Your task to perform on an android device: clear history in the chrome app Image 0: 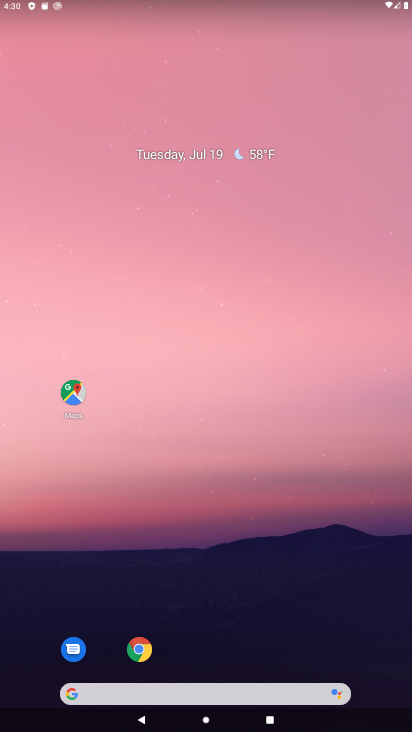
Step 0: drag from (280, 583) to (202, 68)
Your task to perform on an android device: clear history in the chrome app Image 1: 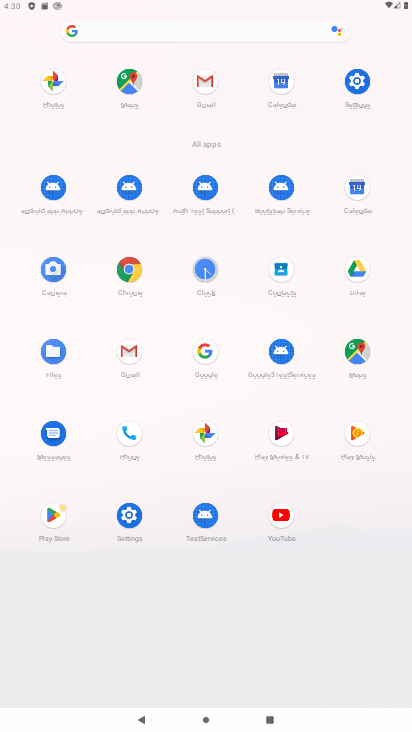
Step 1: click (116, 250)
Your task to perform on an android device: clear history in the chrome app Image 2: 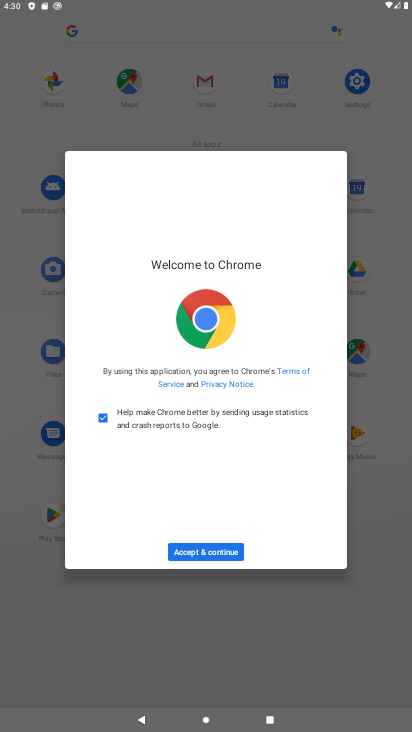
Step 2: click (193, 549)
Your task to perform on an android device: clear history in the chrome app Image 3: 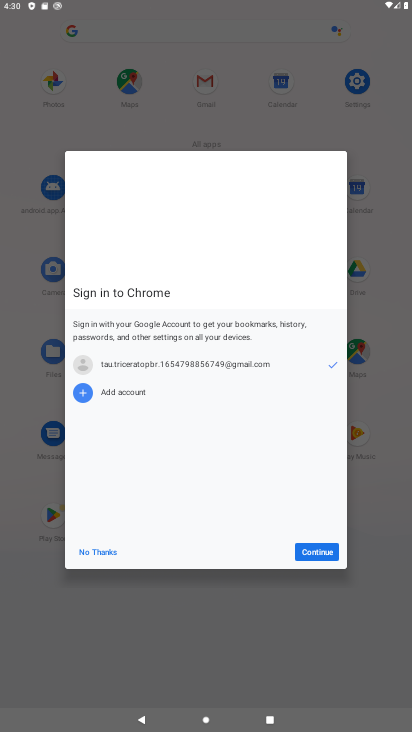
Step 3: click (323, 550)
Your task to perform on an android device: clear history in the chrome app Image 4: 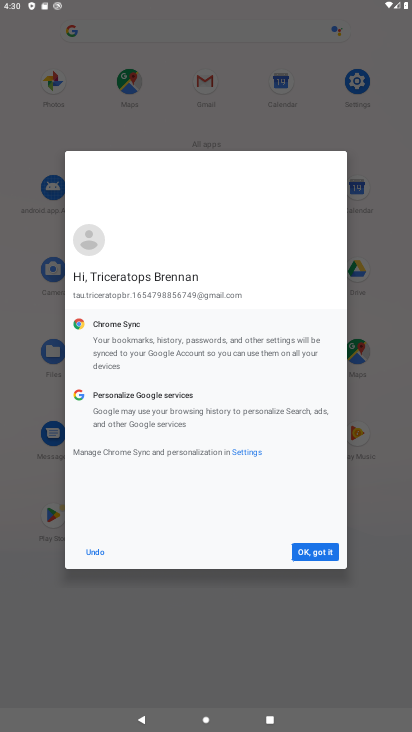
Step 4: click (323, 550)
Your task to perform on an android device: clear history in the chrome app Image 5: 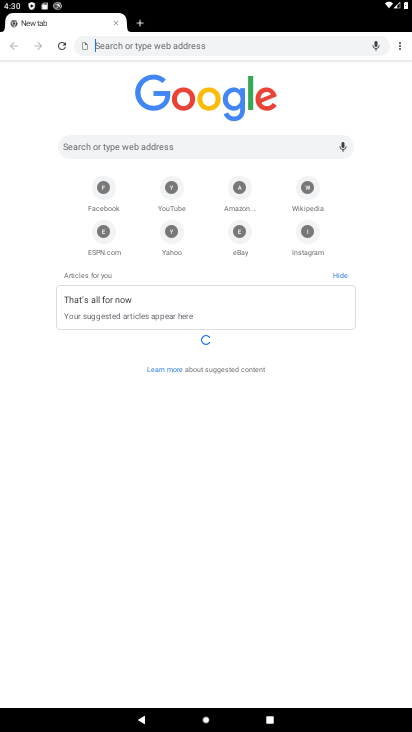
Step 5: drag from (401, 44) to (309, 145)
Your task to perform on an android device: clear history in the chrome app Image 6: 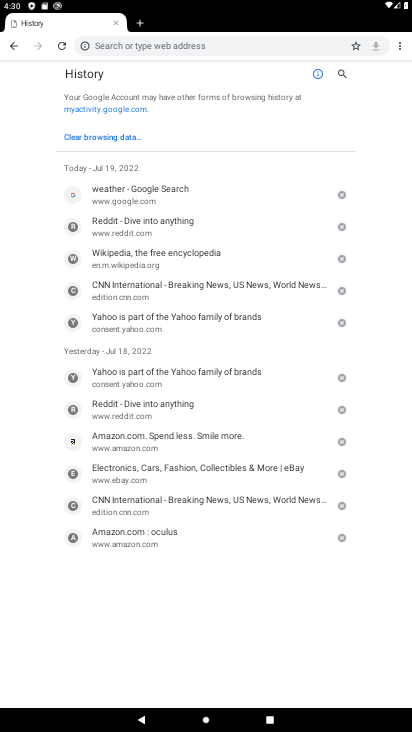
Step 6: click (98, 132)
Your task to perform on an android device: clear history in the chrome app Image 7: 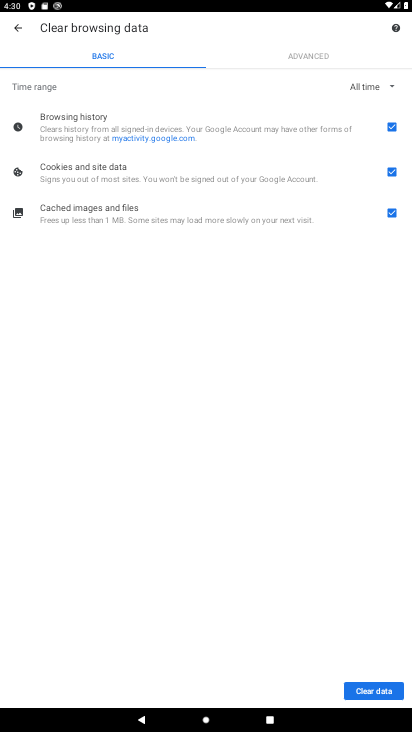
Step 7: click (371, 685)
Your task to perform on an android device: clear history in the chrome app Image 8: 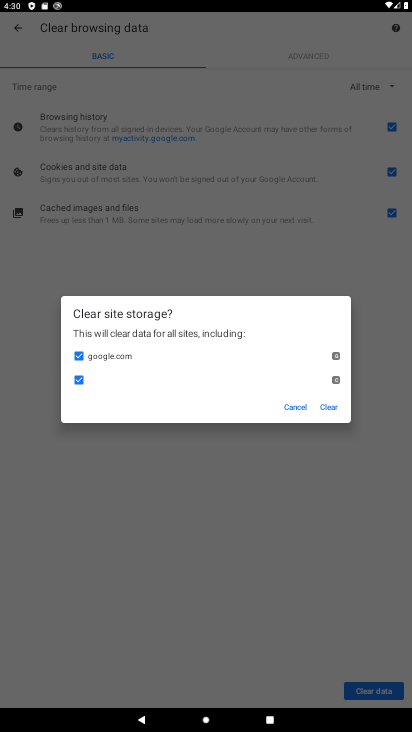
Step 8: click (330, 404)
Your task to perform on an android device: clear history in the chrome app Image 9: 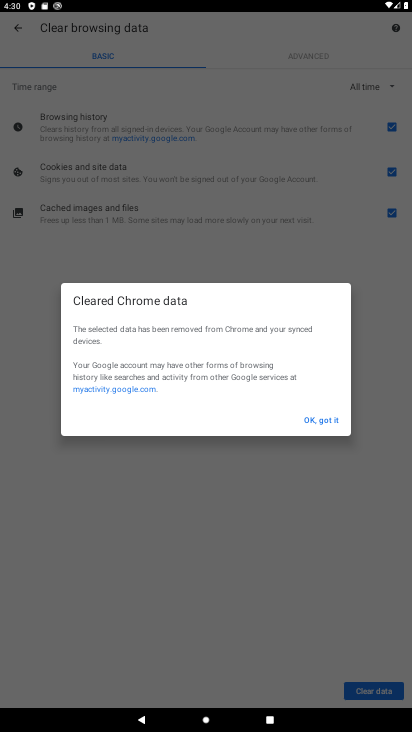
Step 9: click (317, 422)
Your task to perform on an android device: clear history in the chrome app Image 10: 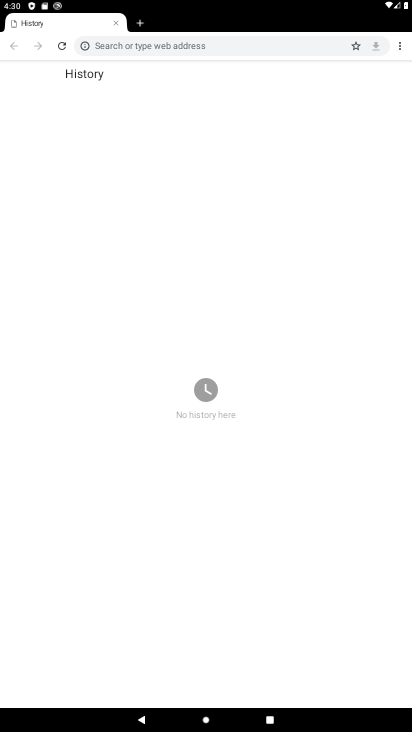
Step 10: task complete